Your task to perform on an android device: set default search engine in the chrome app Image 0: 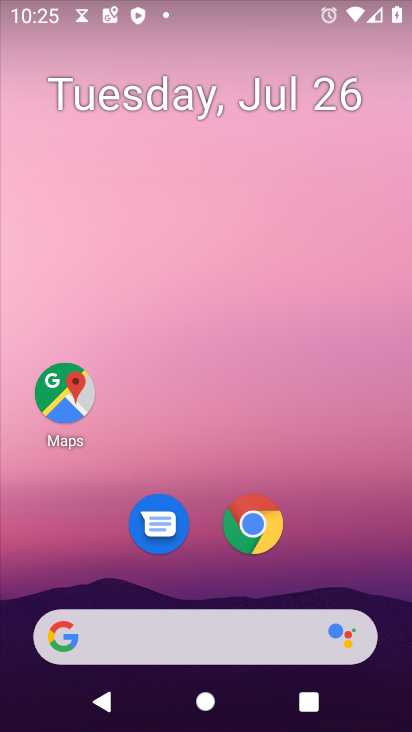
Step 0: press home button
Your task to perform on an android device: set default search engine in the chrome app Image 1: 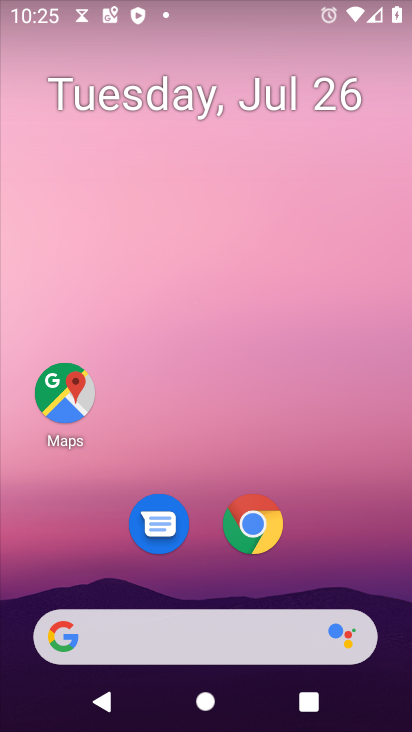
Step 1: click (248, 526)
Your task to perform on an android device: set default search engine in the chrome app Image 2: 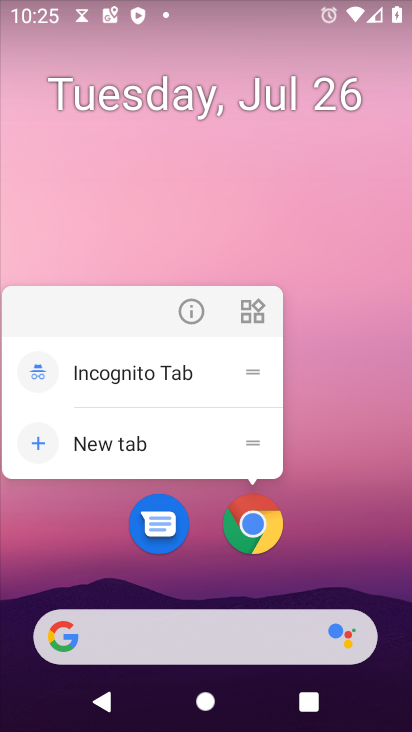
Step 2: click (265, 510)
Your task to perform on an android device: set default search engine in the chrome app Image 3: 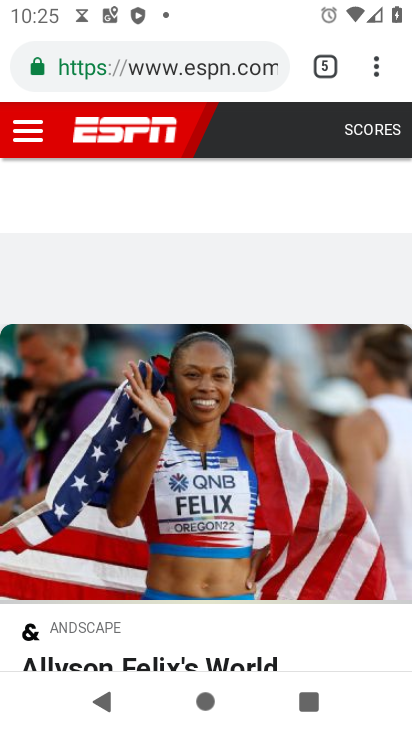
Step 3: drag from (376, 75) to (212, 511)
Your task to perform on an android device: set default search engine in the chrome app Image 4: 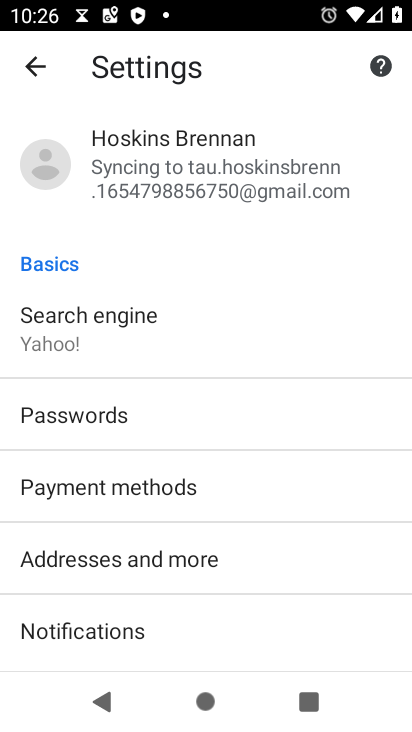
Step 4: click (90, 332)
Your task to perform on an android device: set default search engine in the chrome app Image 5: 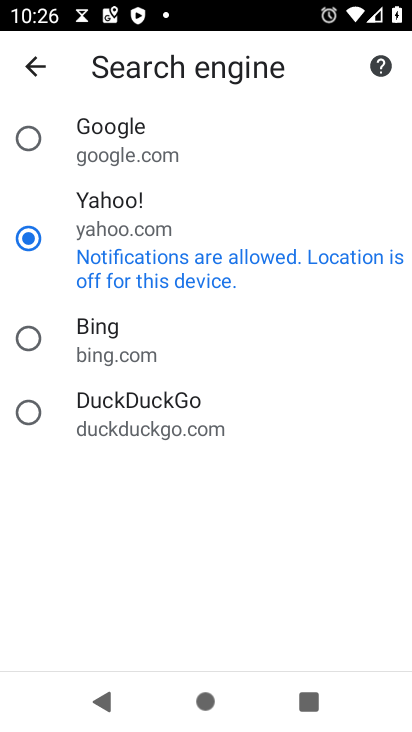
Step 5: click (27, 137)
Your task to perform on an android device: set default search engine in the chrome app Image 6: 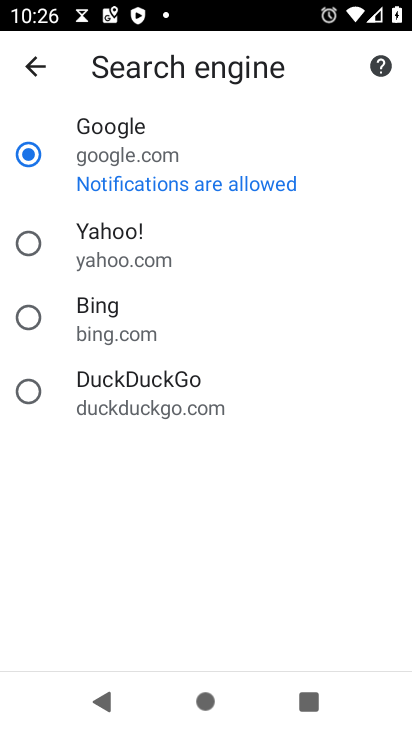
Step 6: task complete